Your task to perform on an android device: Search for seafood restaurants on Google Maps Image 0: 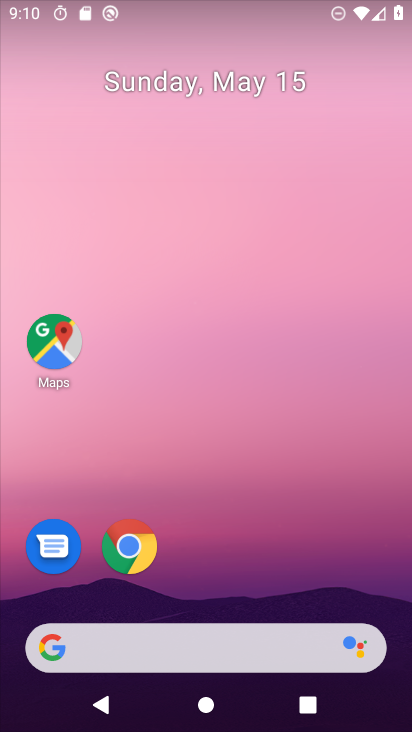
Step 0: click (53, 335)
Your task to perform on an android device: Search for seafood restaurants on Google Maps Image 1: 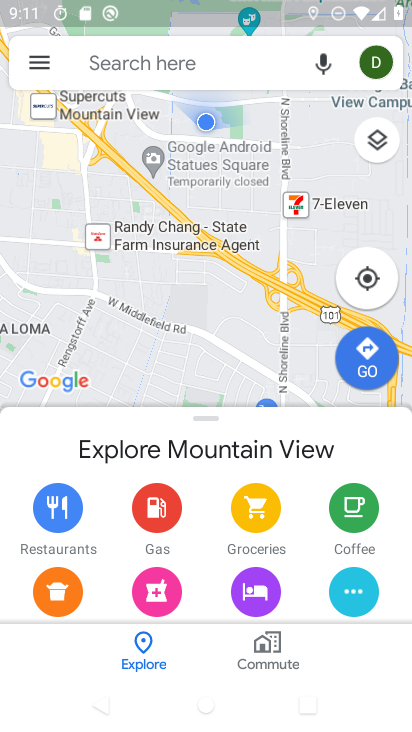
Step 1: click (186, 53)
Your task to perform on an android device: Search for seafood restaurants on Google Maps Image 2: 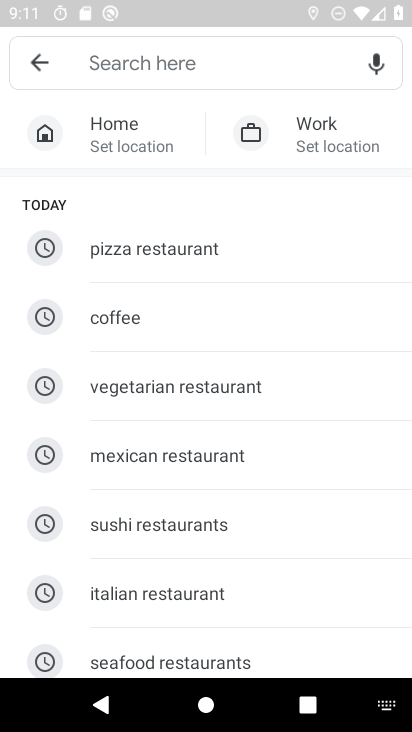
Step 2: click (174, 661)
Your task to perform on an android device: Search for seafood restaurants on Google Maps Image 3: 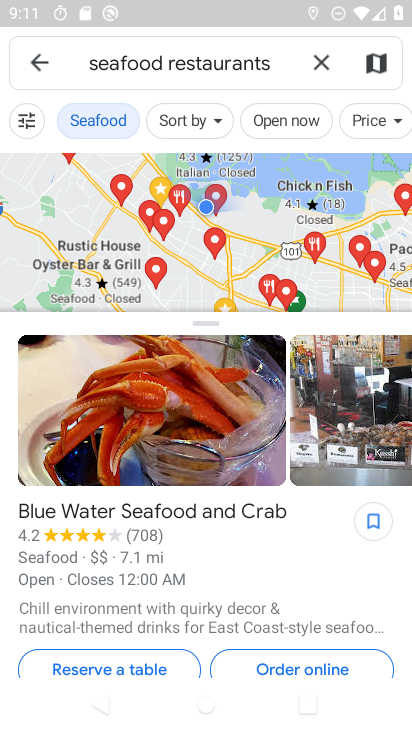
Step 3: task complete